Your task to perform on an android device: Open eBay Image 0: 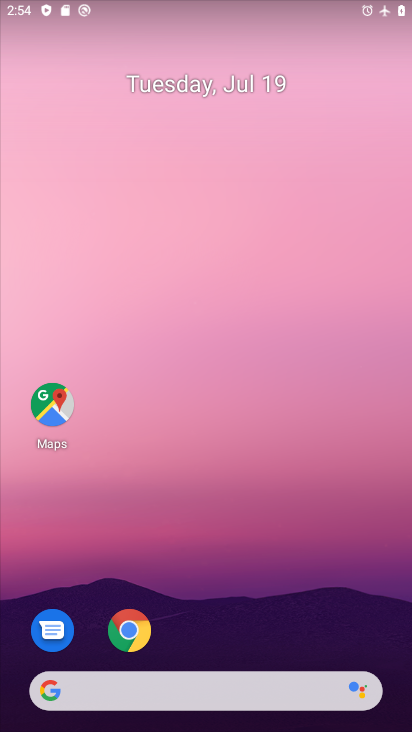
Step 0: click (281, 701)
Your task to perform on an android device: Open eBay Image 1: 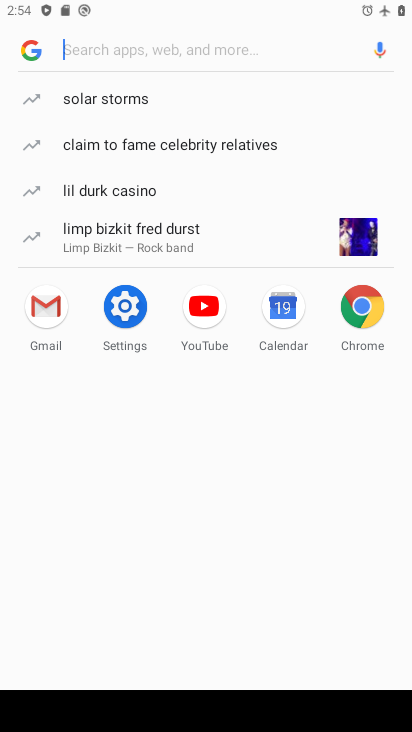
Step 1: type "ebay"
Your task to perform on an android device: Open eBay Image 2: 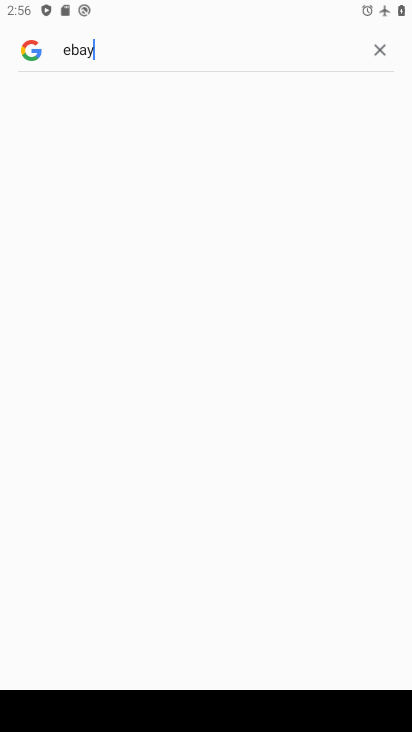
Step 2: task complete